Your task to perform on an android device: Install the Yahoo app Image 0: 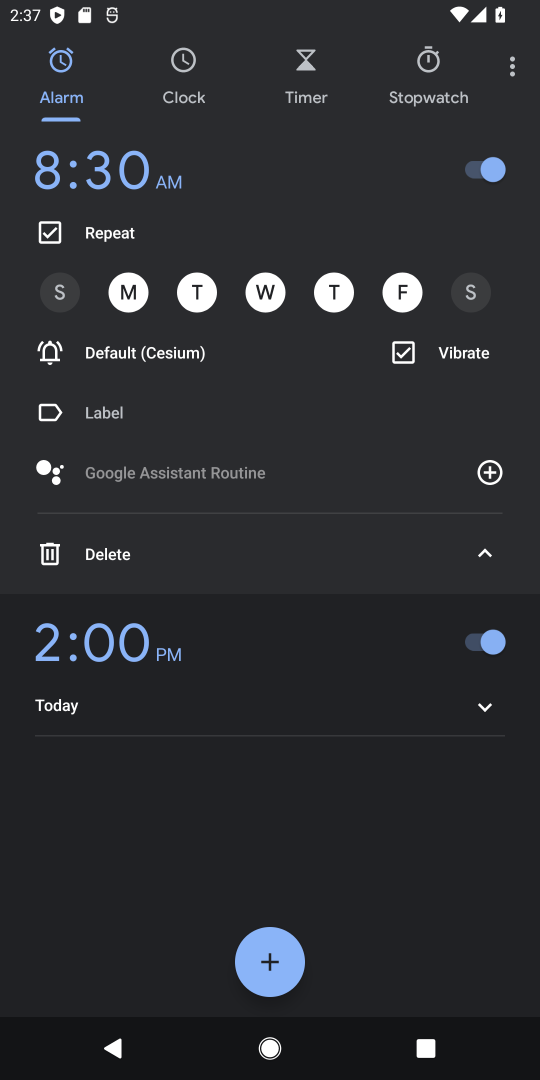
Step 0: press home button
Your task to perform on an android device: Install the Yahoo app Image 1: 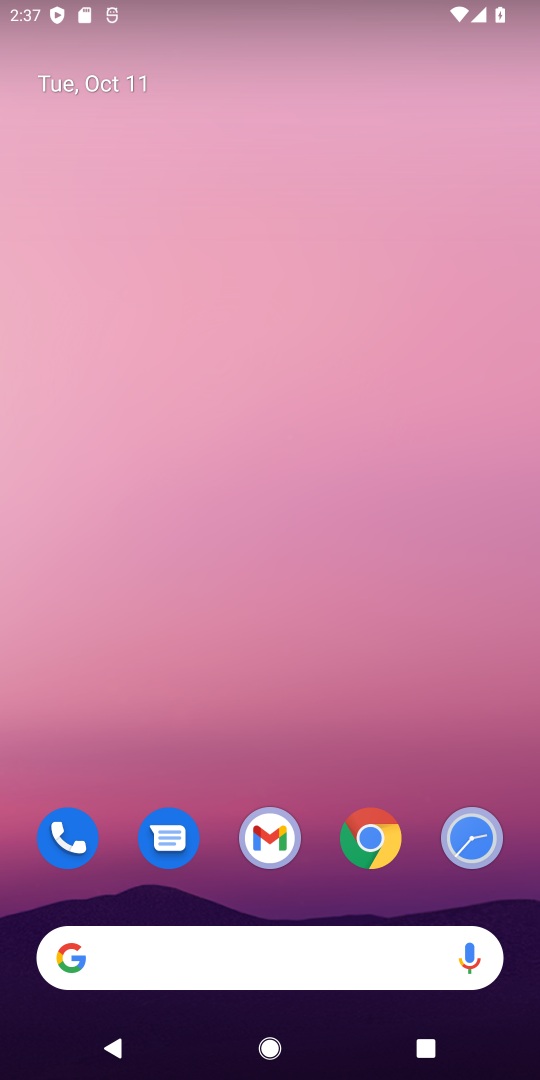
Step 1: click (376, 845)
Your task to perform on an android device: Install the Yahoo app Image 2: 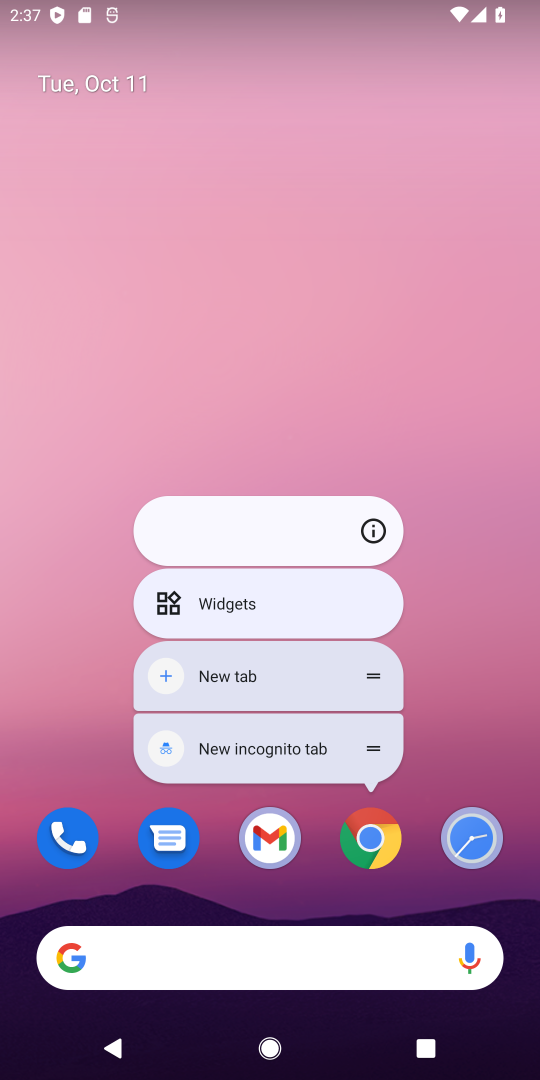
Step 2: click (354, 845)
Your task to perform on an android device: Install the Yahoo app Image 3: 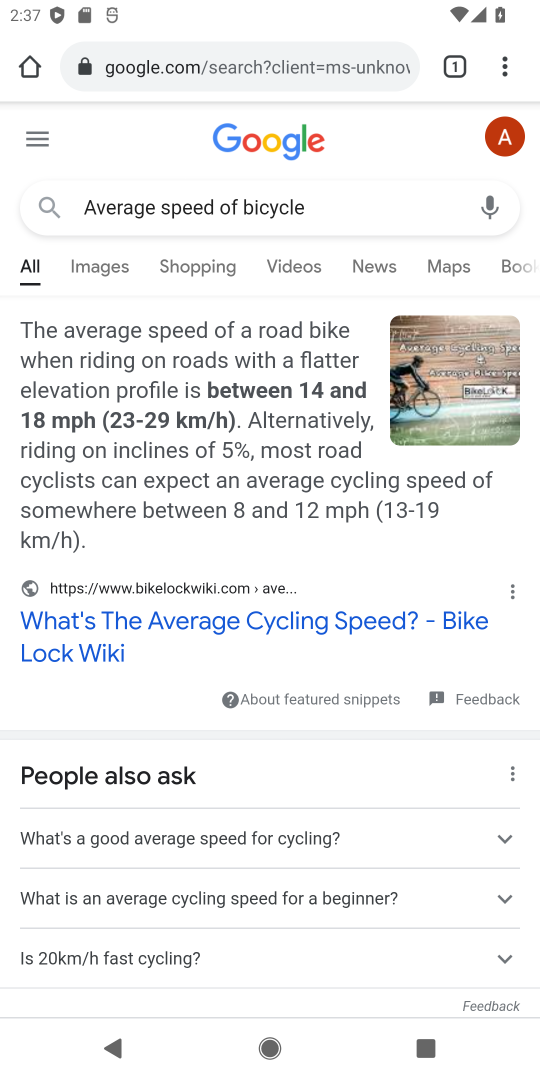
Step 3: press home button
Your task to perform on an android device: Install the Yahoo app Image 4: 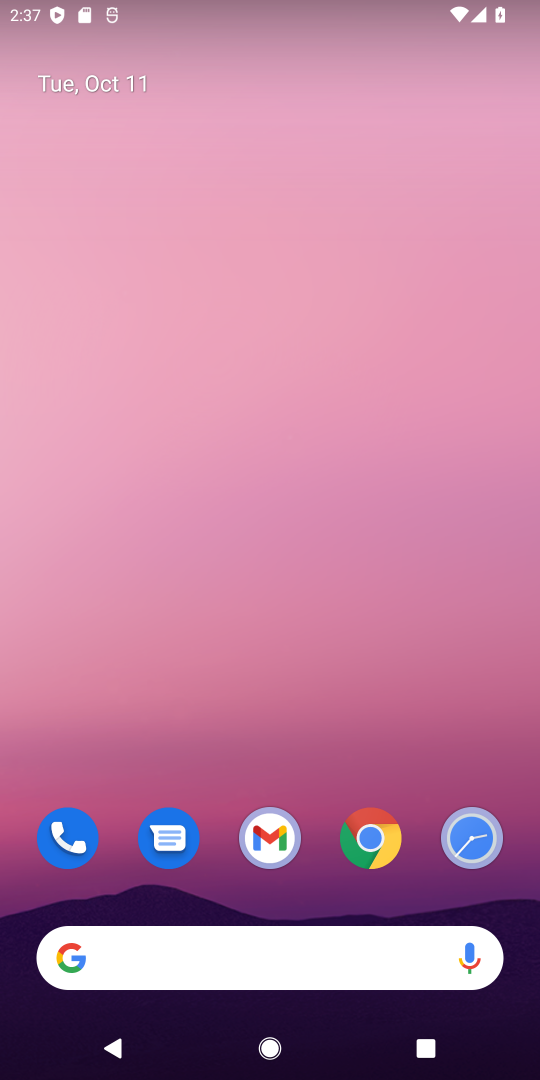
Step 4: drag from (238, 695) to (259, 150)
Your task to perform on an android device: Install the Yahoo app Image 5: 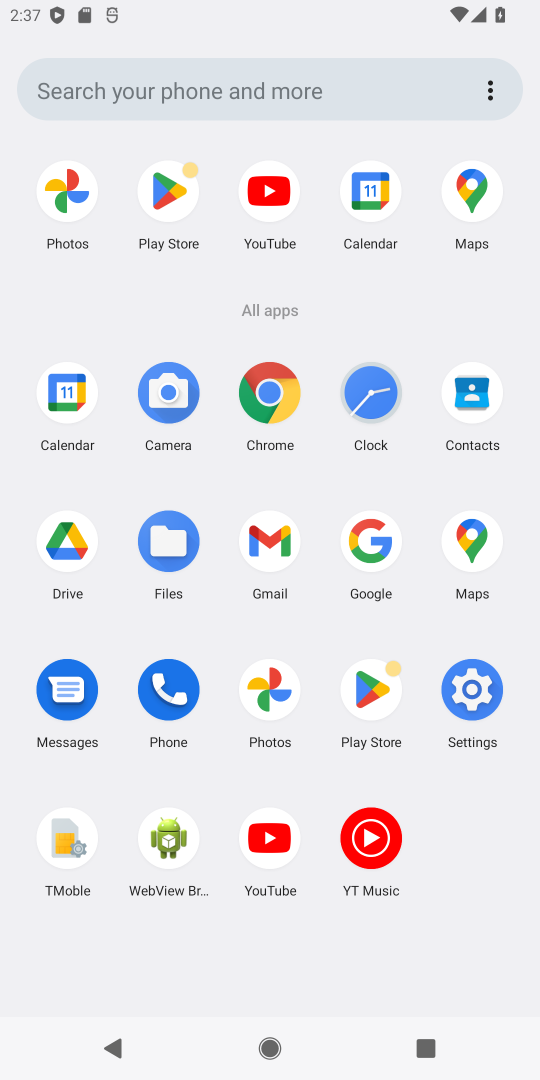
Step 5: click (174, 185)
Your task to perform on an android device: Install the Yahoo app Image 6: 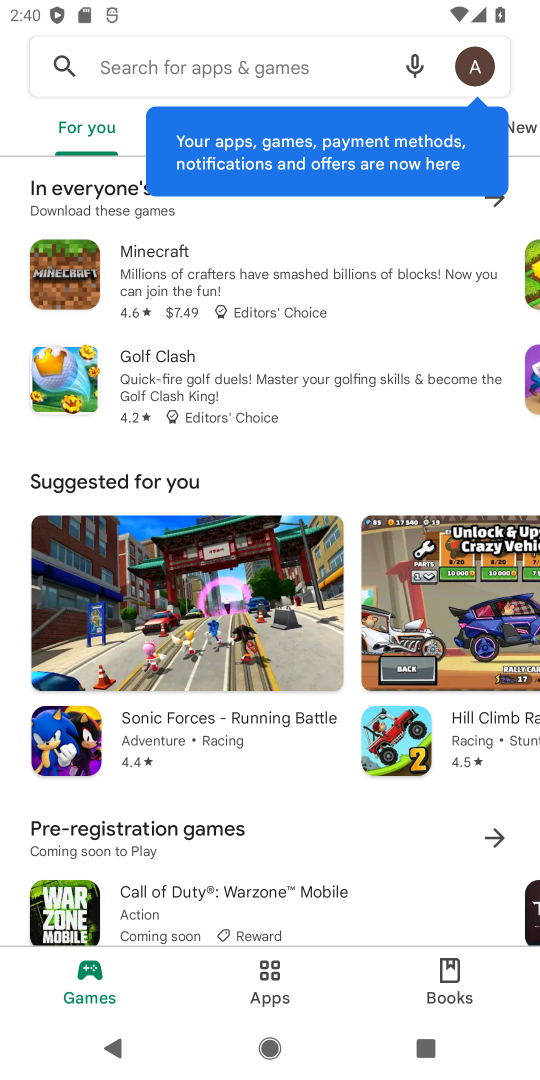
Step 6: drag from (260, 560) to (285, 397)
Your task to perform on an android device: Install the Yahoo app Image 7: 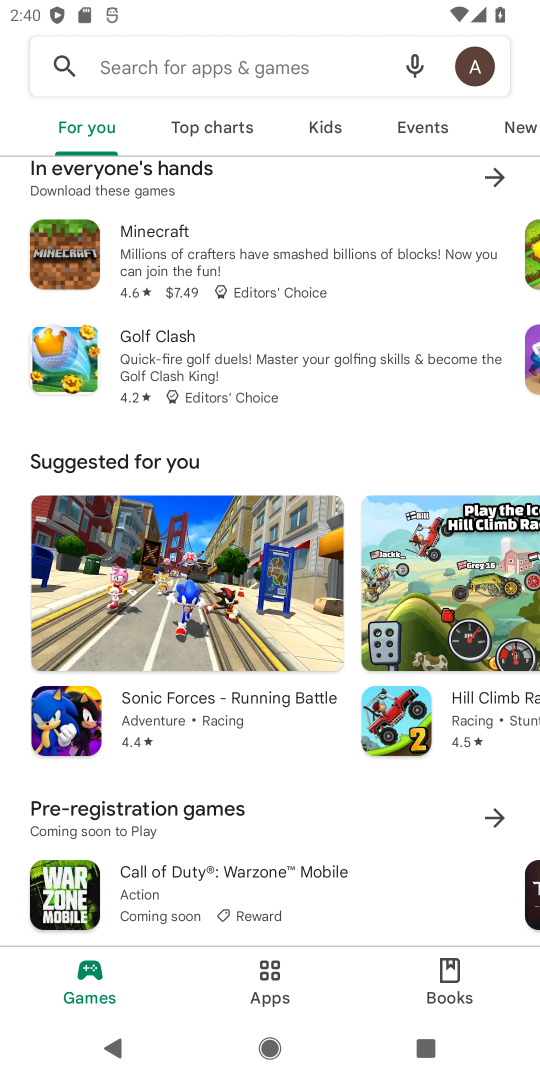
Step 7: click (136, 69)
Your task to perform on an android device: Install the Yahoo app Image 8: 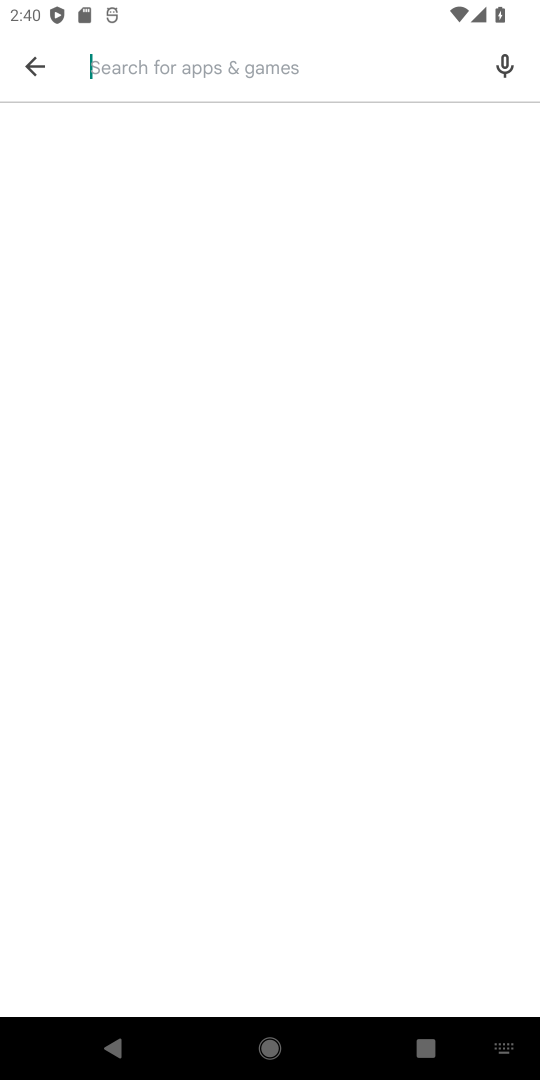
Step 8: type "install yahoo app"
Your task to perform on an android device: Install the Yahoo app Image 9: 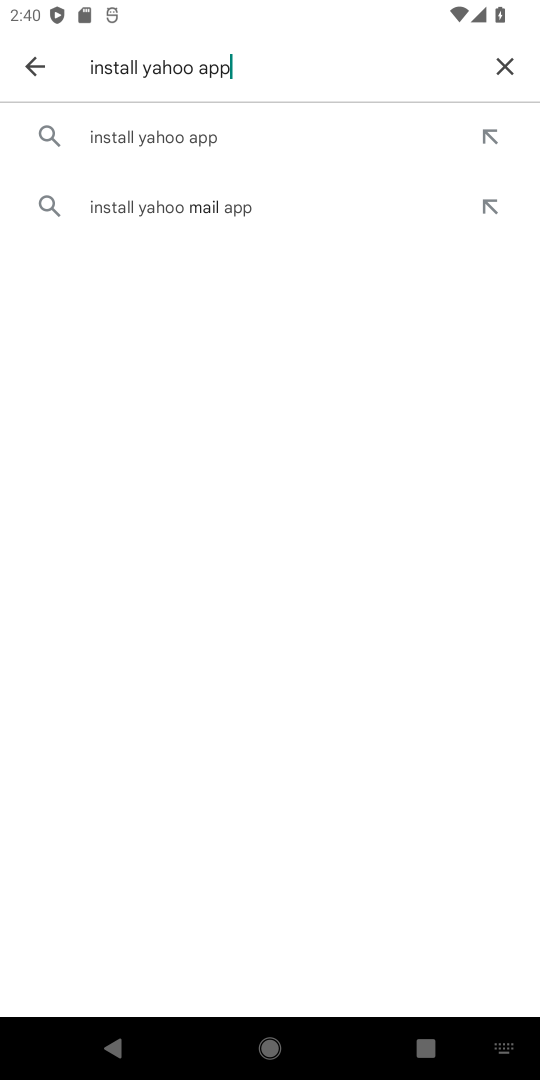
Step 9: click (157, 143)
Your task to perform on an android device: Install the Yahoo app Image 10: 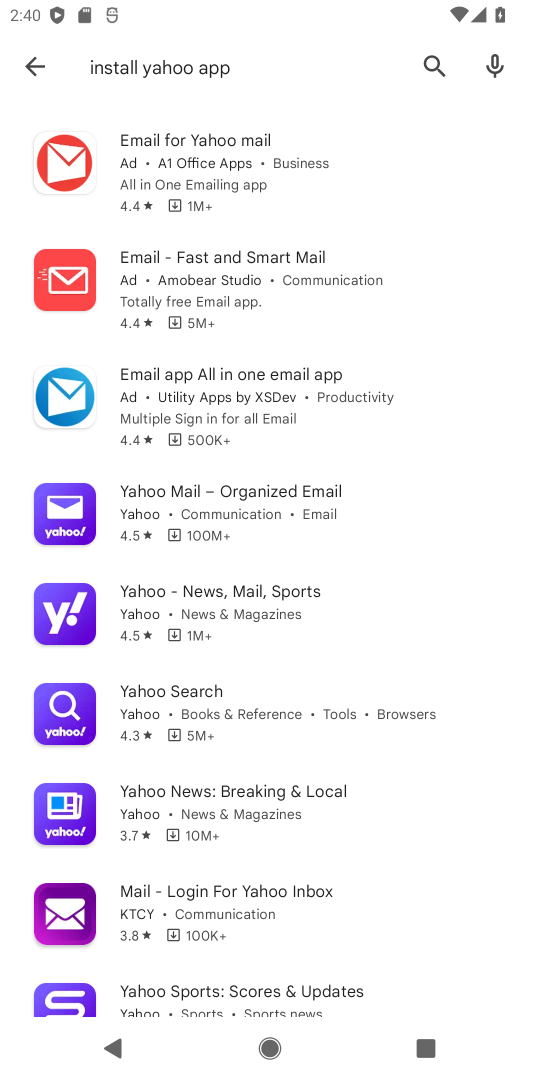
Step 10: press back button
Your task to perform on an android device: Install the Yahoo app Image 11: 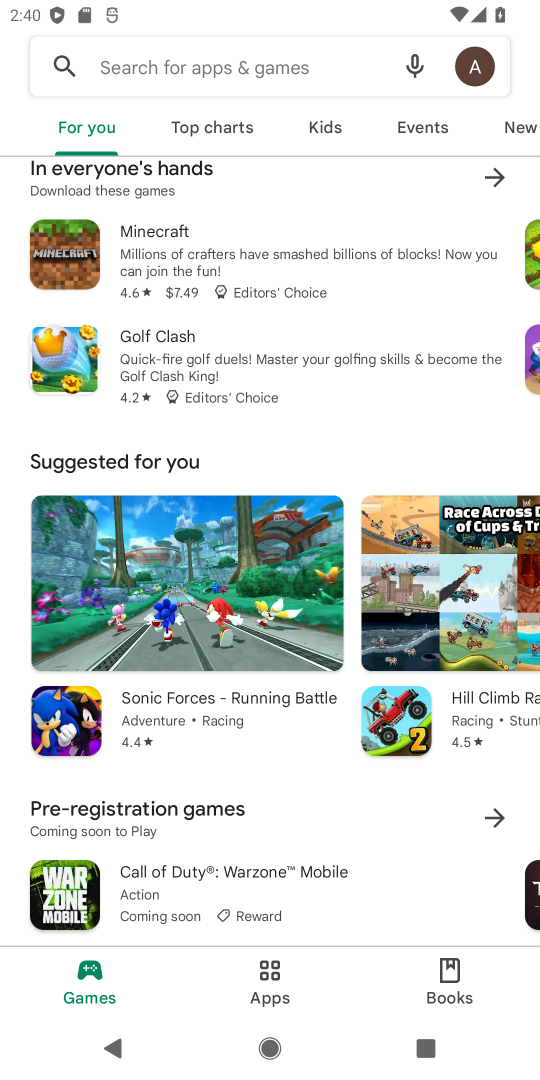
Step 11: click (266, 959)
Your task to perform on an android device: Install the Yahoo app Image 12: 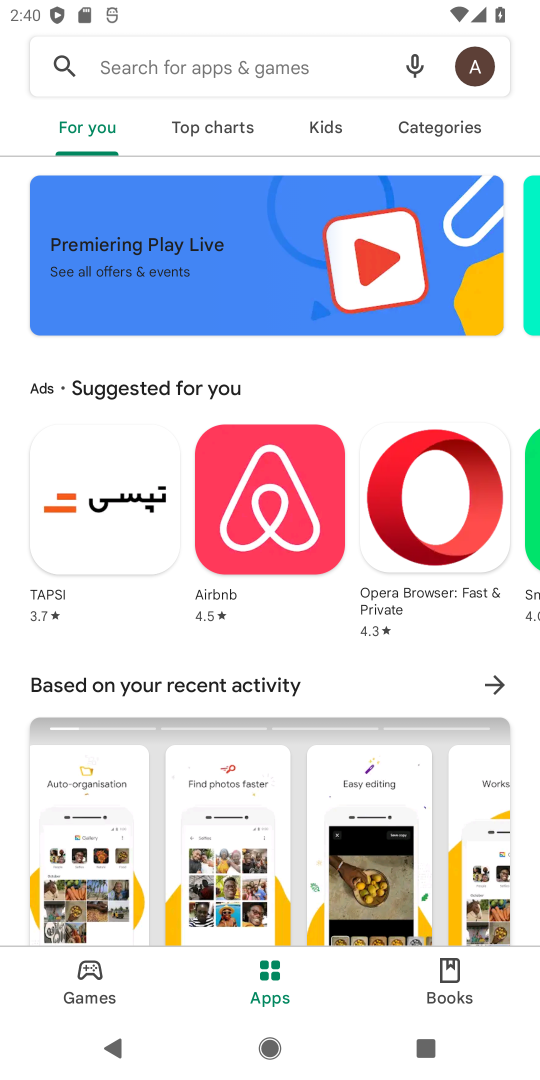
Step 12: click (156, 62)
Your task to perform on an android device: Install the Yahoo app Image 13: 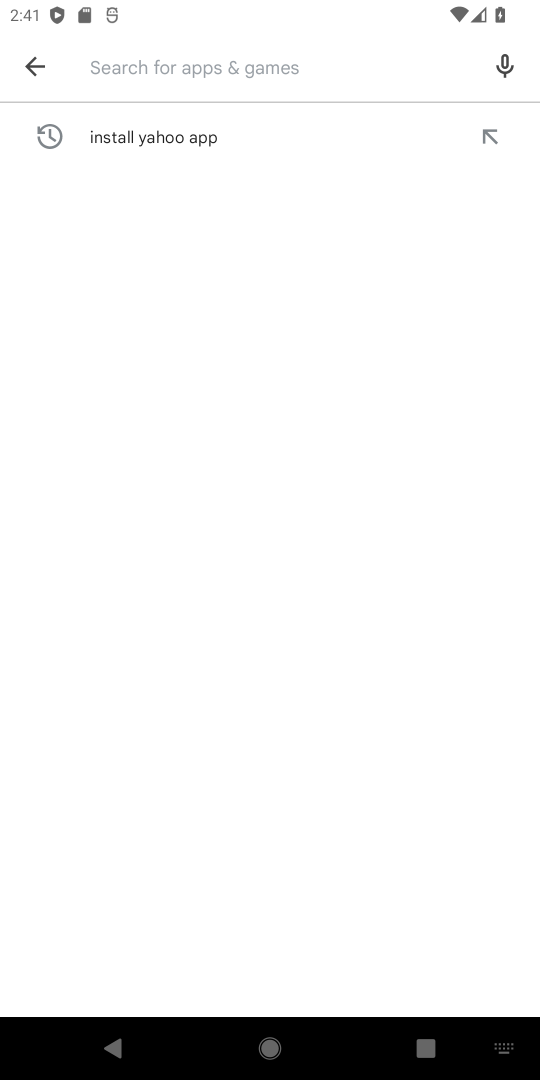
Step 13: type "yahoo"
Your task to perform on an android device: Install the Yahoo app Image 14: 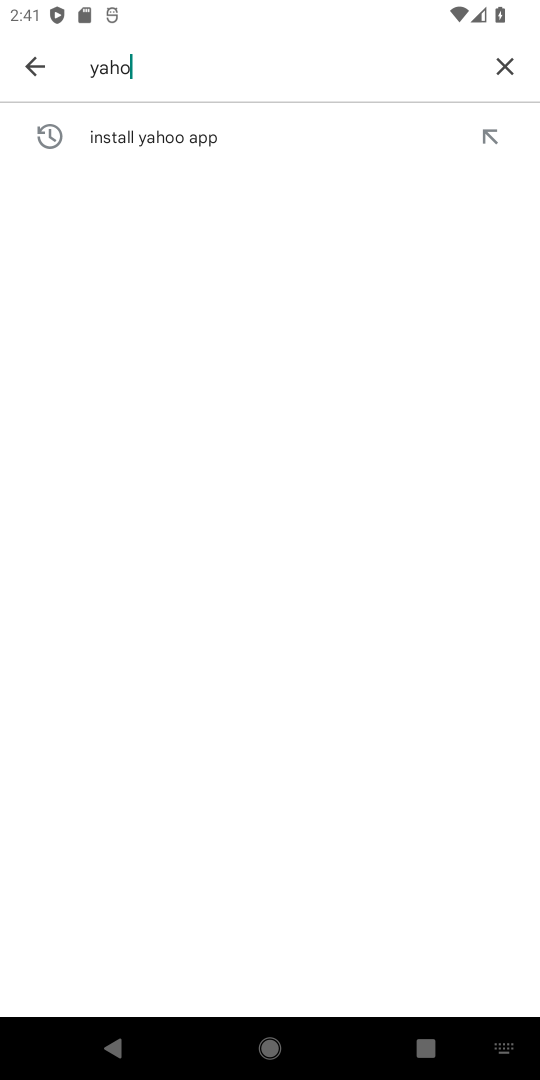
Step 14: type ""
Your task to perform on an android device: Install the Yahoo app Image 15: 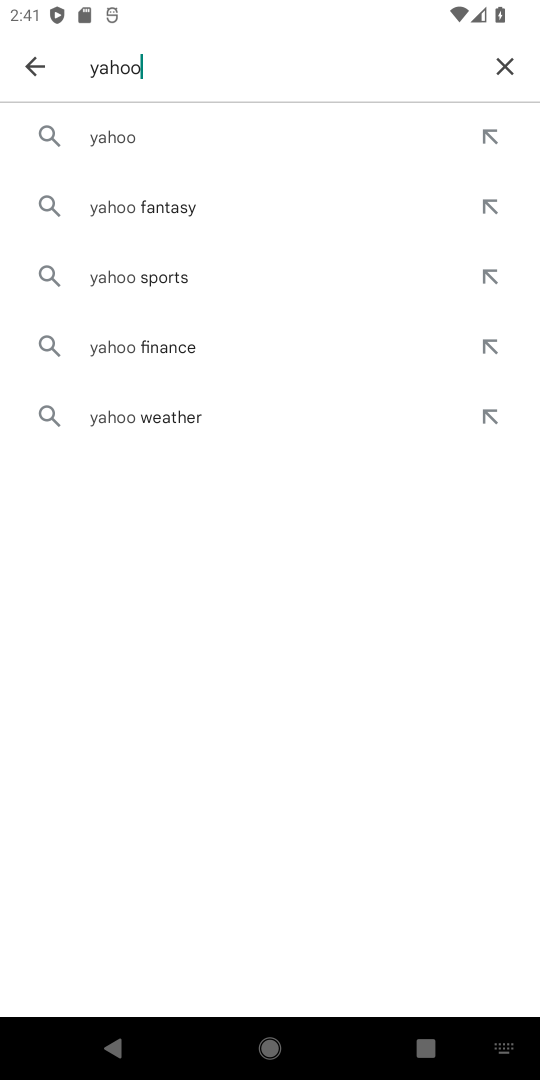
Step 15: click (113, 135)
Your task to perform on an android device: Install the Yahoo app Image 16: 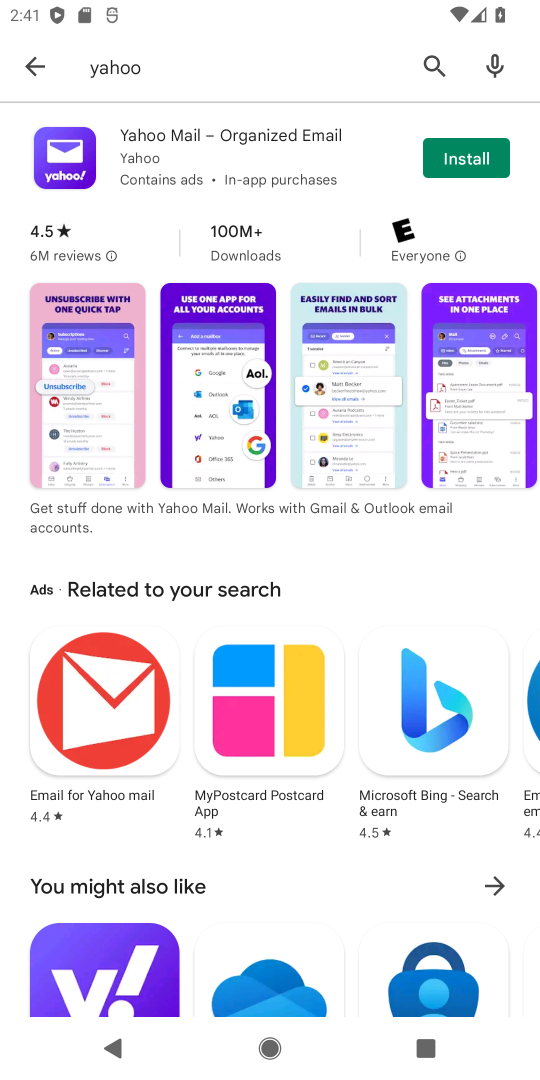
Step 16: drag from (470, 615) to (434, 117)
Your task to perform on an android device: Install the Yahoo app Image 17: 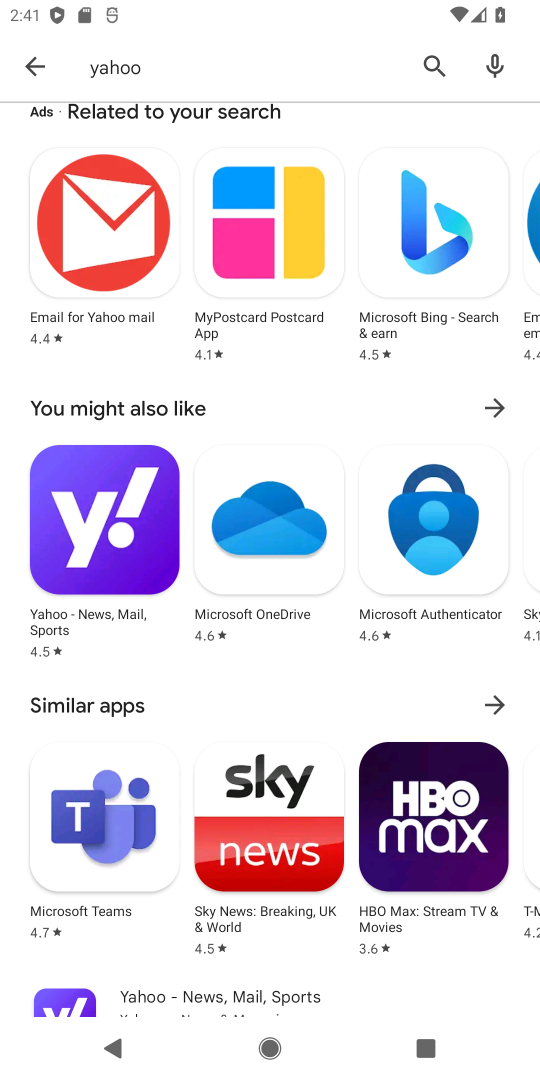
Step 17: click (158, 992)
Your task to perform on an android device: Install the Yahoo app Image 18: 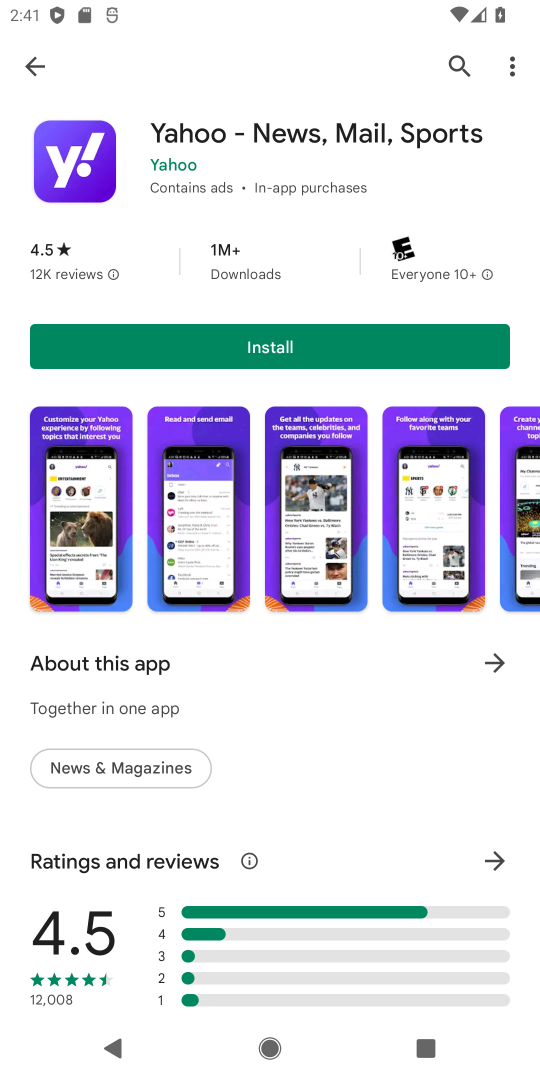
Step 18: click (222, 349)
Your task to perform on an android device: Install the Yahoo app Image 19: 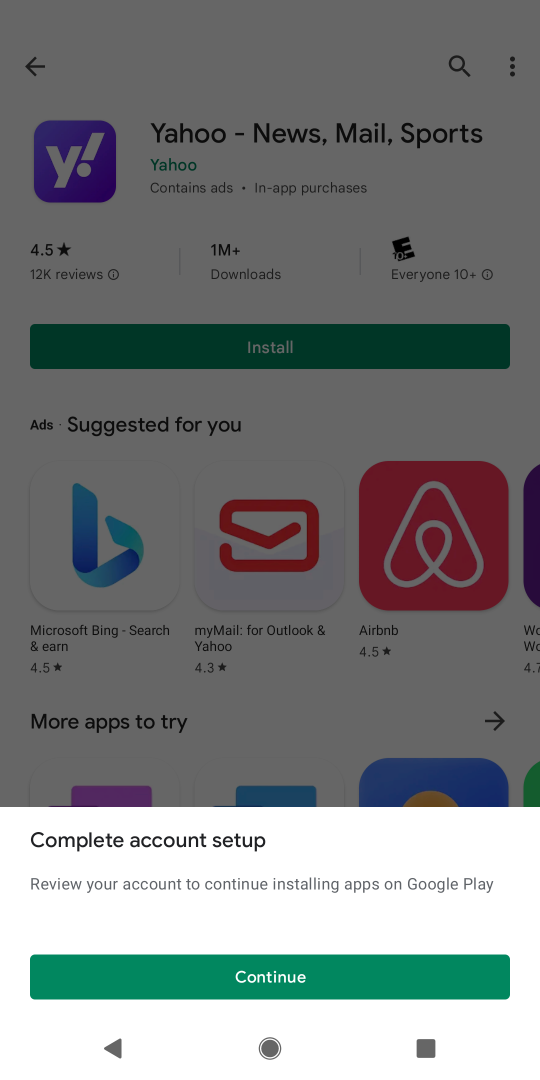
Step 19: click (282, 978)
Your task to perform on an android device: Install the Yahoo app Image 20: 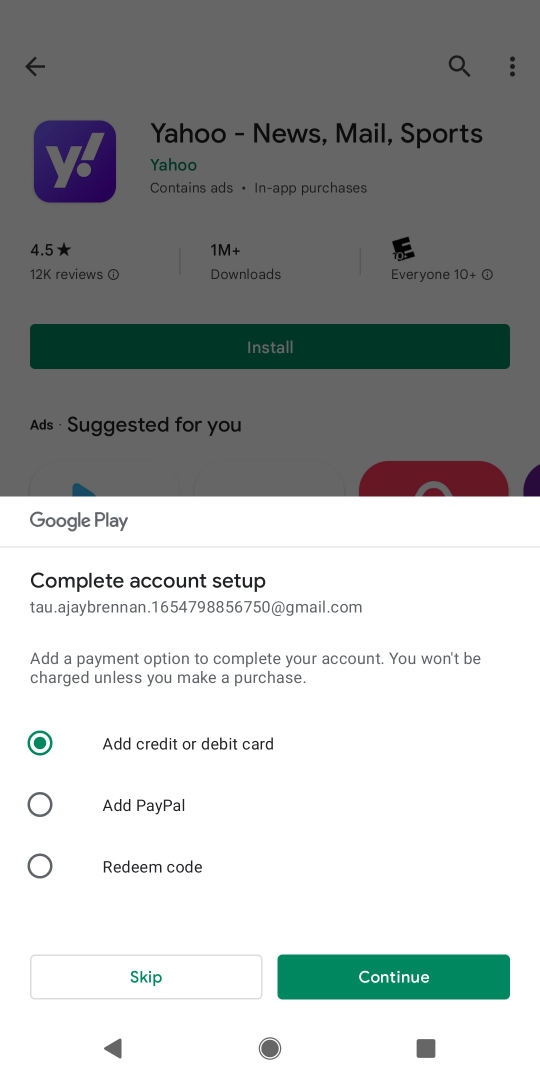
Step 20: click (137, 987)
Your task to perform on an android device: Install the Yahoo app Image 21: 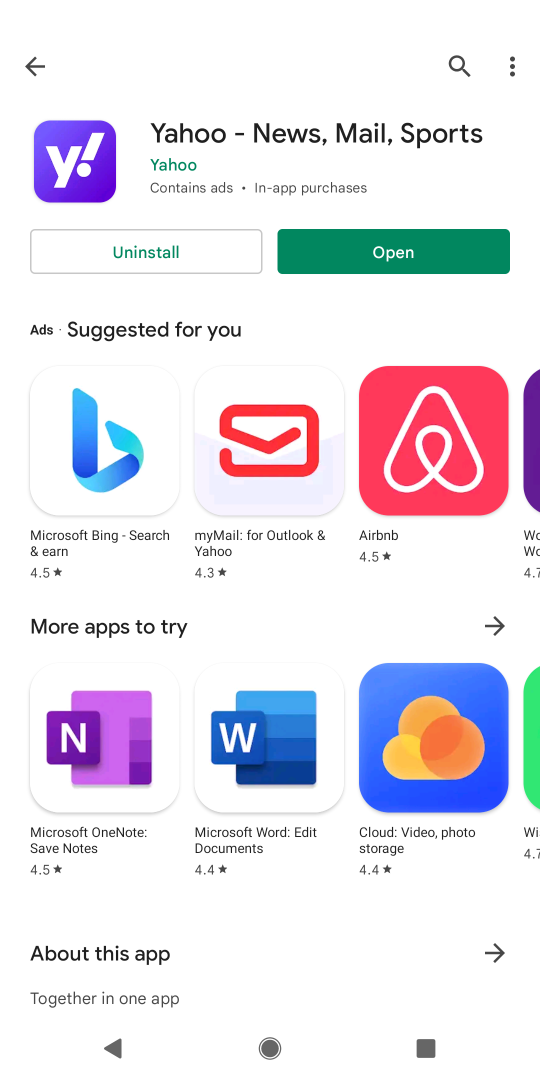
Step 21: click (343, 262)
Your task to perform on an android device: Install the Yahoo app Image 22: 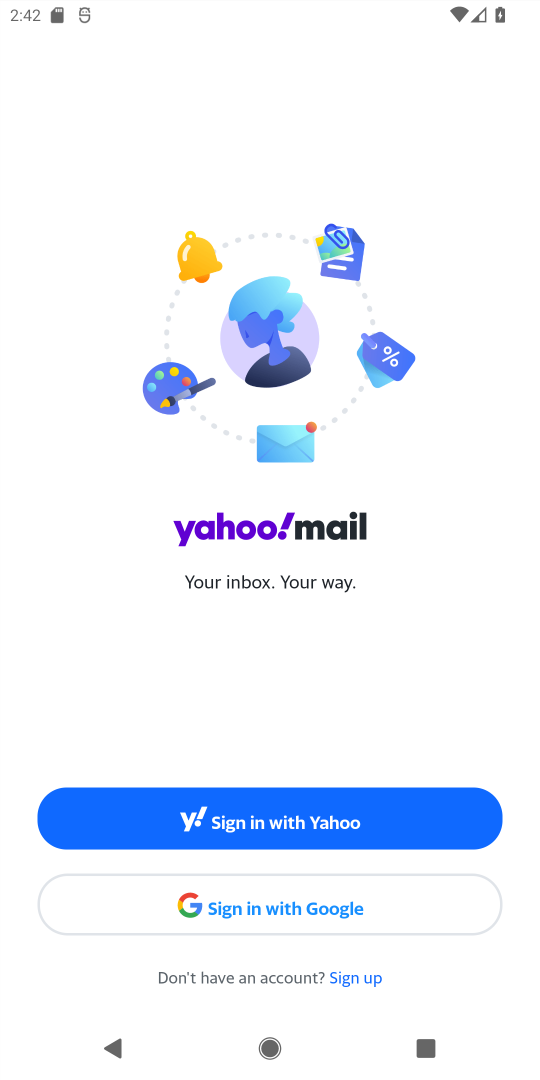
Step 22: task complete